Your task to perform on an android device: Go to CNN.com Image 0: 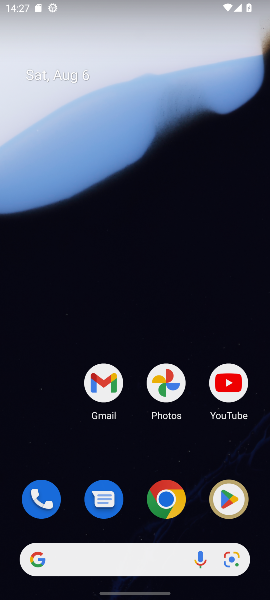
Step 0: press home button
Your task to perform on an android device: Go to CNN.com Image 1: 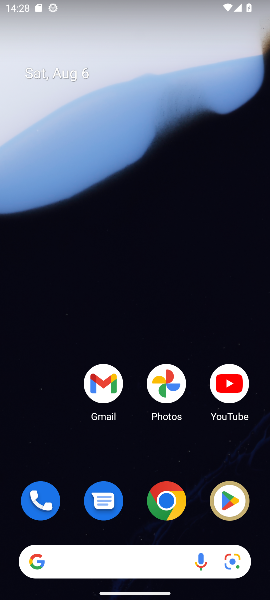
Step 1: click (34, 556)
Your task to perform on an android device: Go to CNN.com Image 2: 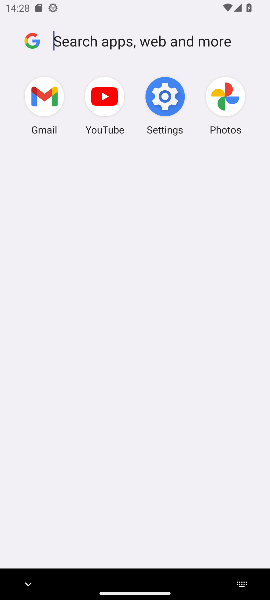
Step 2: press home button
Your task to perform on an android device: Go to CNN.com Image 3: 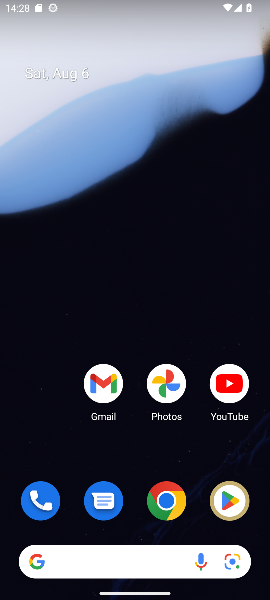
Step 3: drag from (128, 524) to (94, 127)
Your task to perform on an android device: Go to CNN.com Image 4: 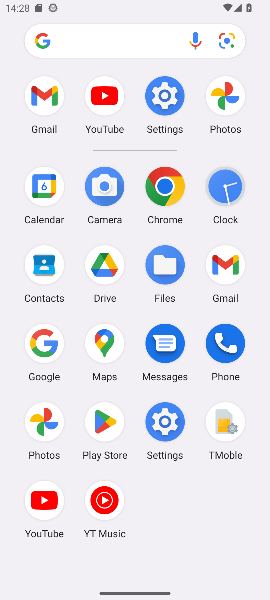
Step 4: click (42, 340)
Your task to perform on an android device: Go to CNN.com Image 5: 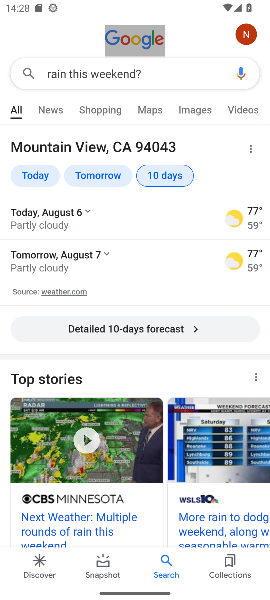
Step 5: click (174, 72)
Your task to perform on an android device: Go to CNN.com Image 6: 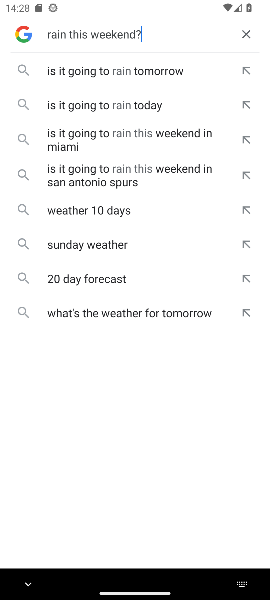
Step 6: click (241, 33)
Your task to perform on an android device: Go to CNN.com Image 7: 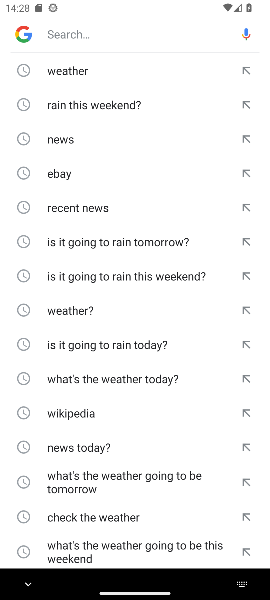
Step 7: type "CNN.com"
Your task to perform on an android device: Go to CNN.com Image 8: 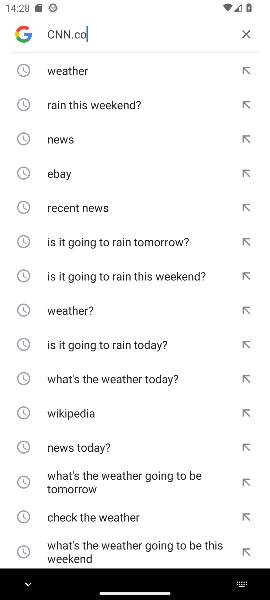
Step 8: press enter
Your task to perform on an android device: Go to CNN.com Image 9: 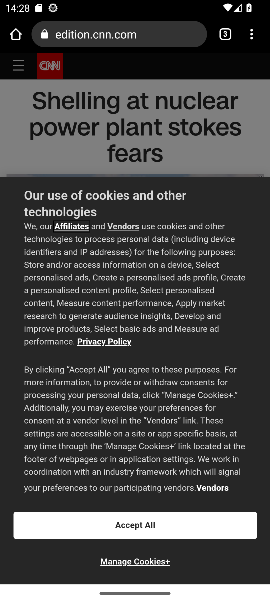
Step 9: click (149, 519)
Your task to perform on an android device: Go to CNN.com Image 10: 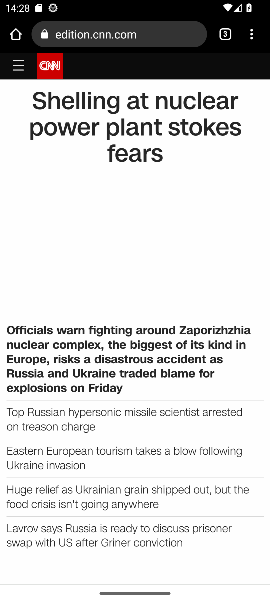
Step 10: task complete